Your task to perform on an android device: Open the stopwatch Image 0: 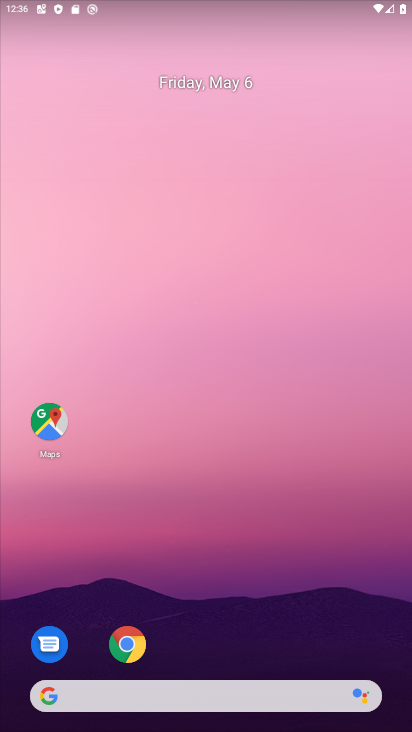
Step 0: drag from (259, 723) to (263, 26)
Your task to perform on an android device: Open the stopwatch Image 1: 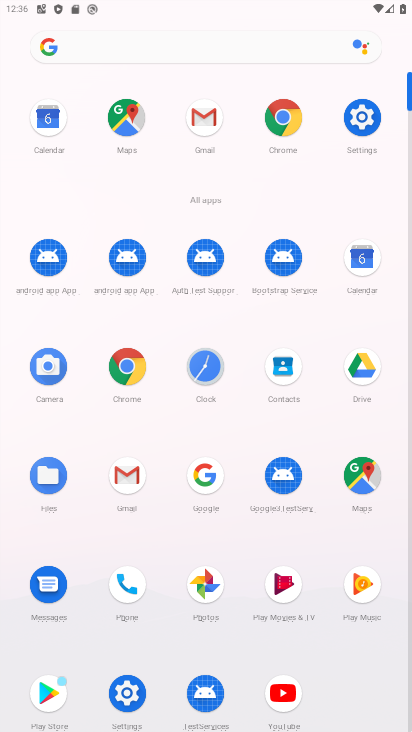
Step 1: click (204, 370)
Your task to perform on an android device: Open the stopwatch Image 2: 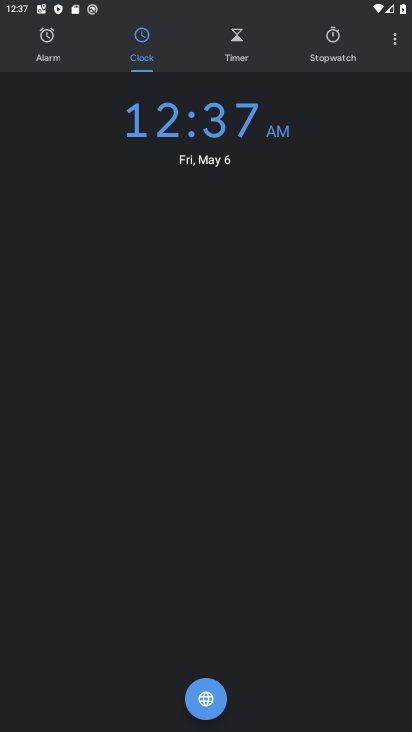
Step 2: click (334, 45)
Your task to perform on an android device: Open the stopwatch Image 3: 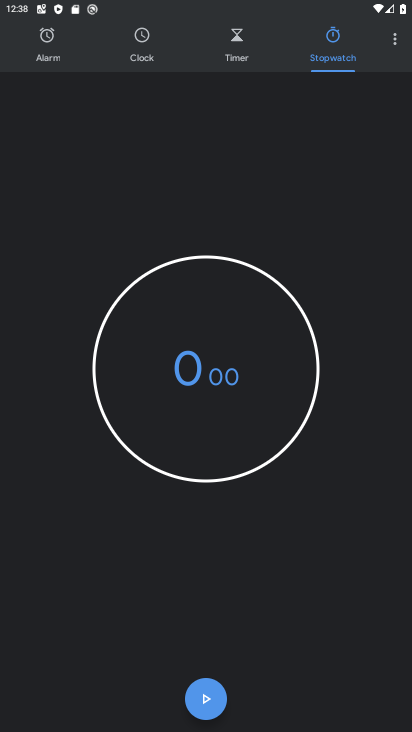
Step 3: task complete